Your task to perform on an android device: turn on improve location accuracy Image 0: 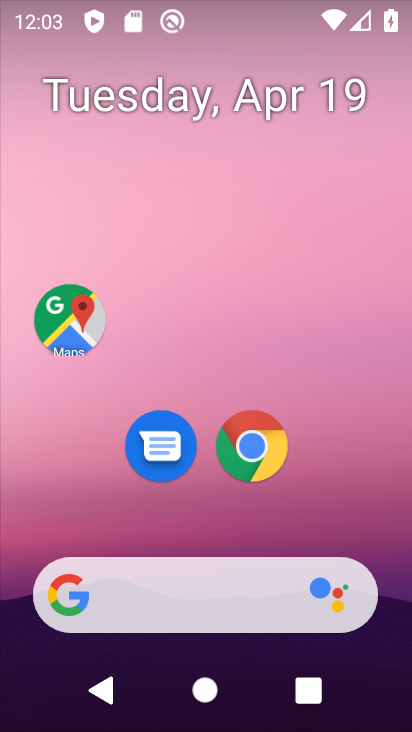
Step 0: drag from (335, 492) to (306, 33)
Your task to perform on an android device: turn on improve location accuracy Image 1: 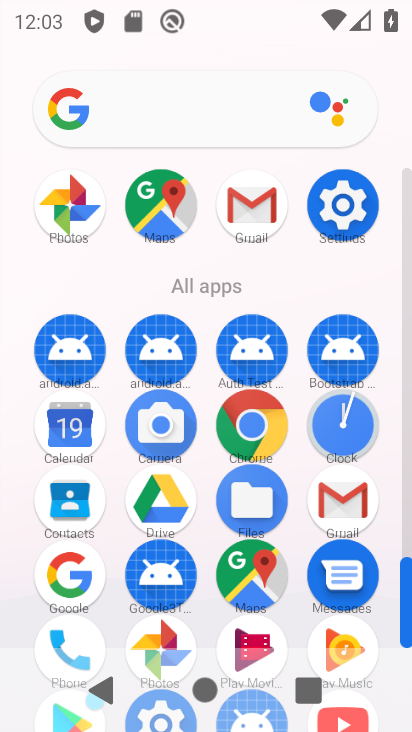
Step 1: click (331, 205)
Your task to perform on an android device: turn on improve location accuracy Image 2: 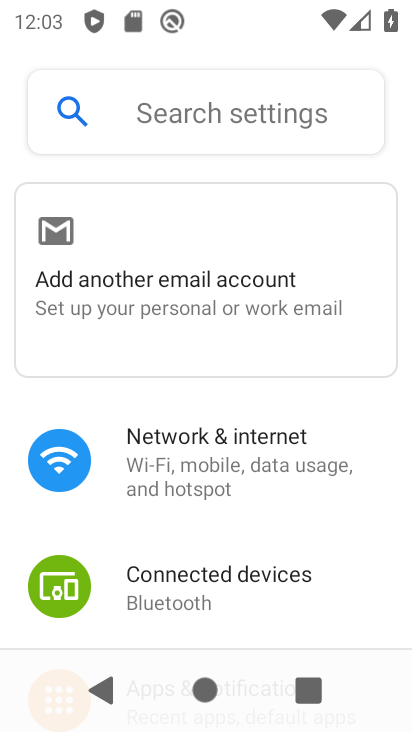
Step 2: drag from (255, 412) to (259, 170)
Your task to perform on an android device: turn on improve location accuracy Image 3: 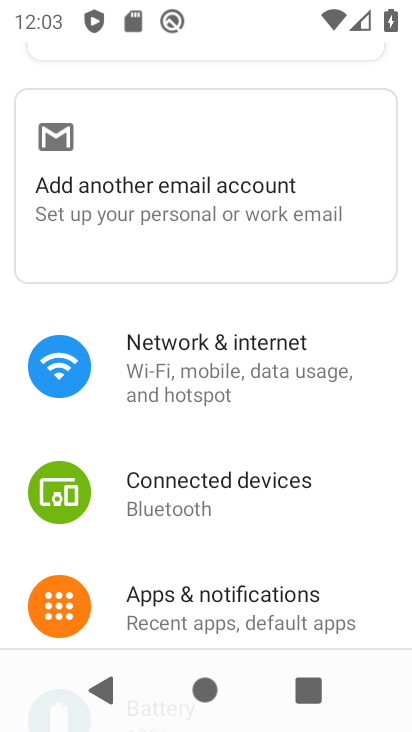
Step 3: drag from (270, 521) to (300, 139)
Your task to perform on an android device: turn on improve location accuracy Image 4: 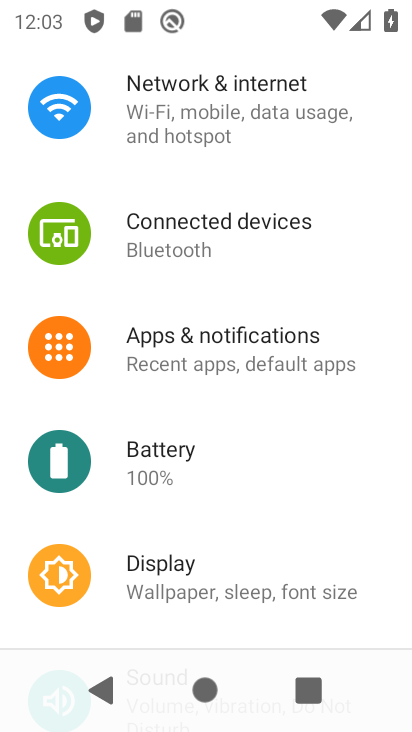
Step 4: drag from (255, 528) to (273, 135)
Your task to perform on an android device: turn on improve location accuracy Image 5: 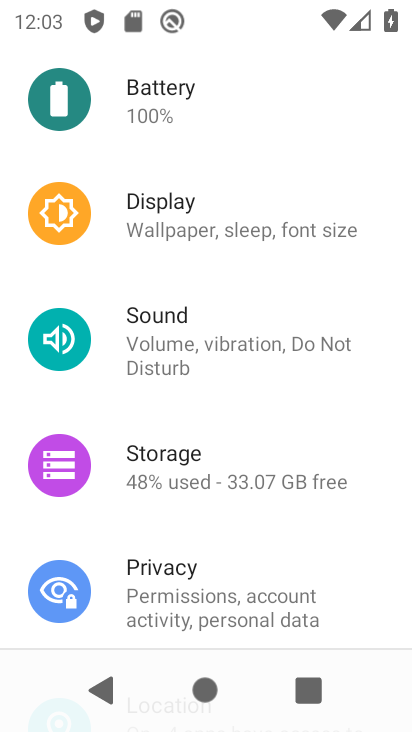
Step 5: drag from (224, 519) to (280, 165)
Your task to perform on an android device: turn on improve location accuracy Image 6: 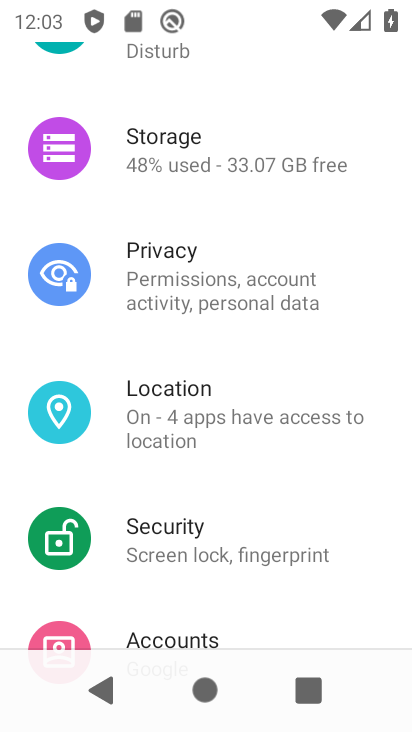
Step 6: click (244, 394)
Your task to perform on an android device: turn on improve location accuracy Image 7: 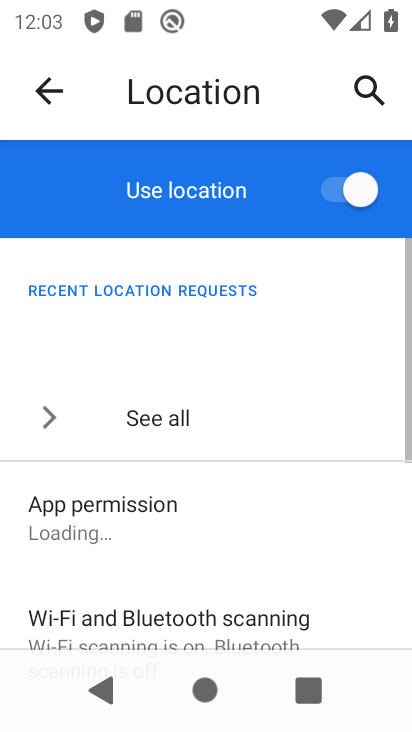
Step 7: drag from (224, 504) to (238, 160)
Your task to perform on an android device: turn on improve location accuracy Image 8: 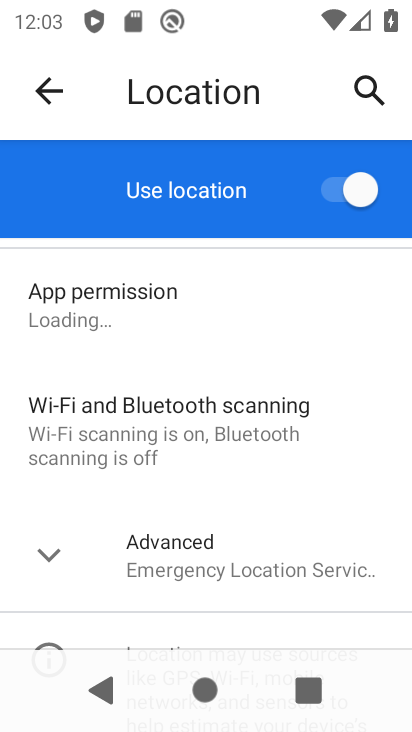
Step 8: click (41, 537)
Your task to perform on an android device: turn on improve location accuracy Image 9: 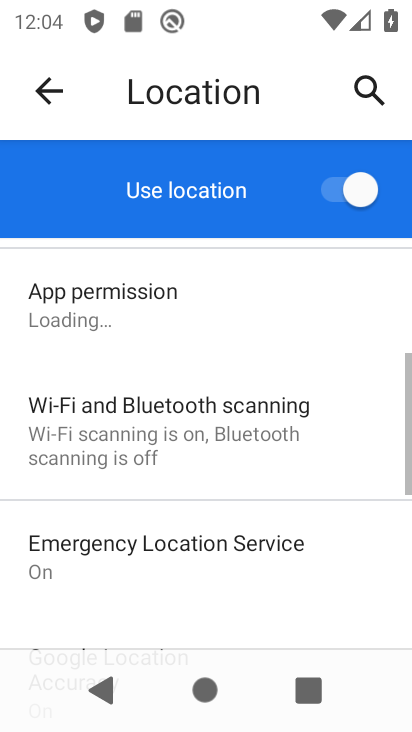
Step 9: drag from (231, 524) to (270, 262)
Your task to perform on an android device: turn on improve location accuracy Image 10: 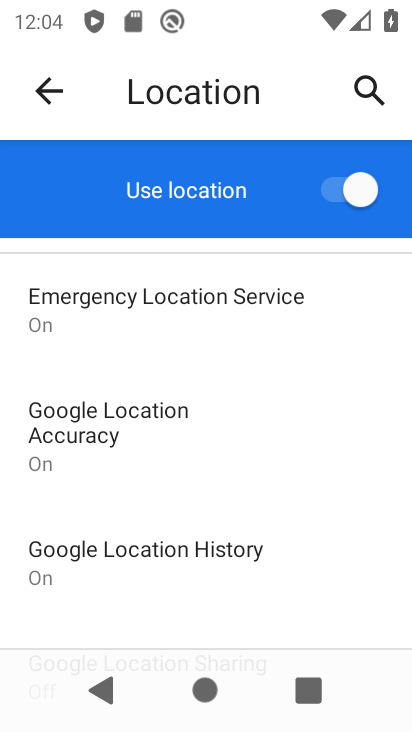
Step 10: click (155, 430)
Your task to perform on an android device: turn on improve location accuracy Image 11: 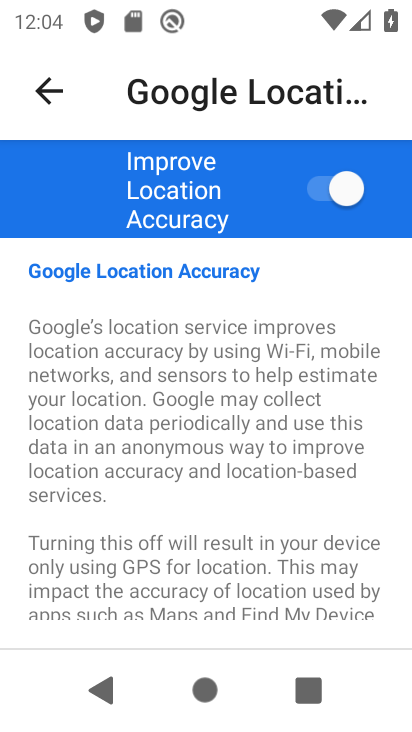
Step 11: task complete